Your task to perform on an android device: check the backup settings in the google photos Image 0: 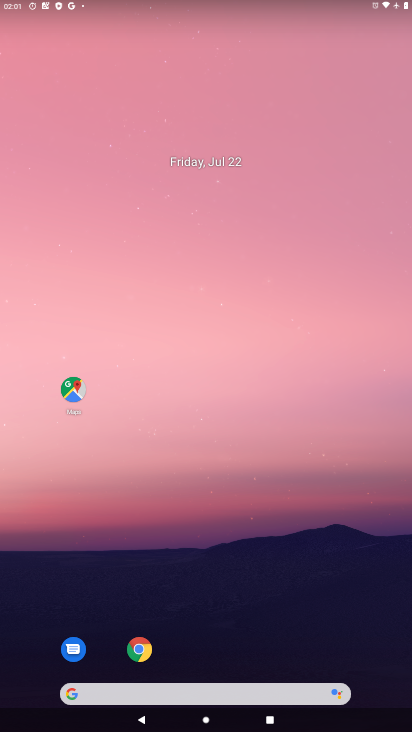
Step 0: drag from (298, 578) to (264, 80)
Your task to perform on an android device: check the backup settings in the google photos Image 1: 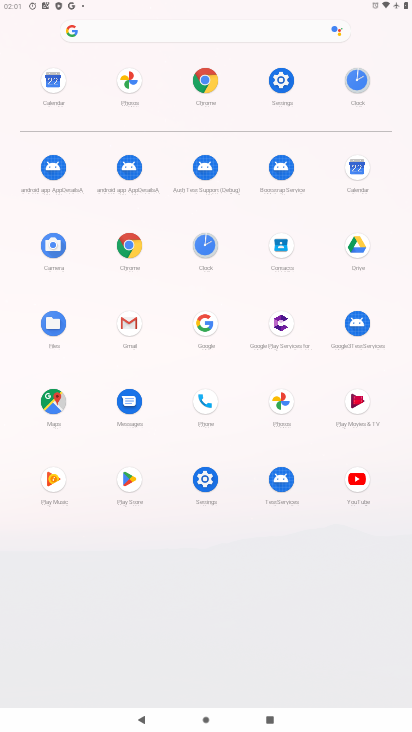
Step 1: click (276, 396)
Your task to perform on an android device: check the backup settings in the google photos Image 2: 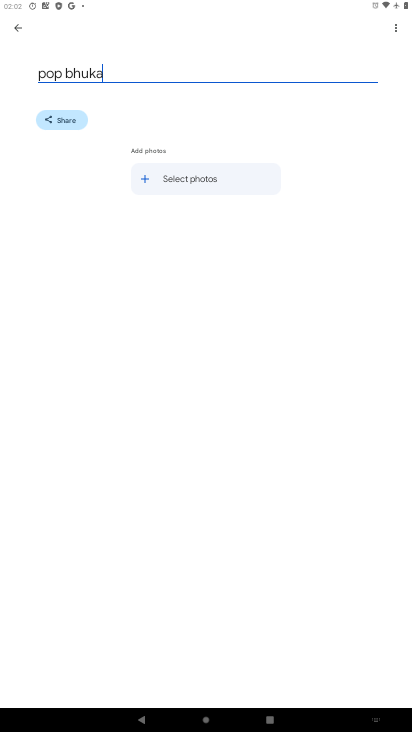
Step 2: click (17, 24)
Your task to perform on an android device: check the backup settings in the google photos Image 3: 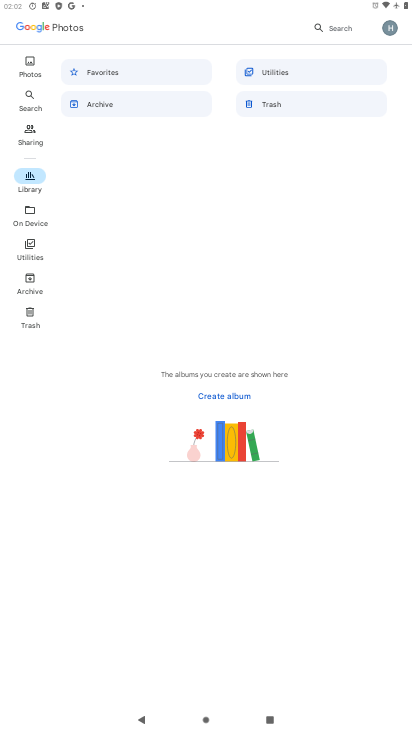
Step 3: click (396, 23)
Your task to perform on an android device: check the backup settings in the google photos Image 4: 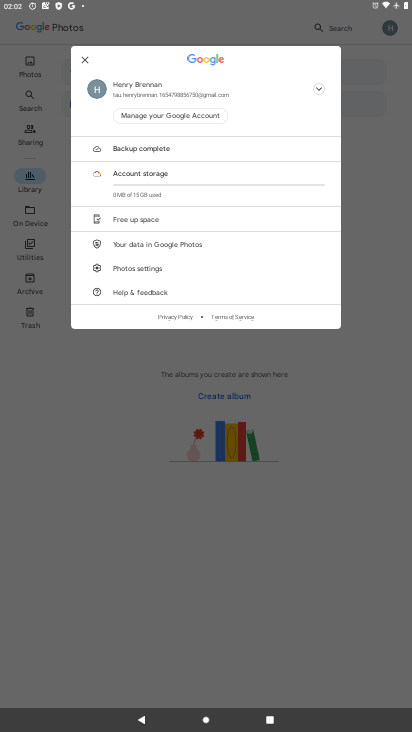
Step 4: click (137, 273)
Your task to perform on an android device: check the backup settings in the google photos Image 5: 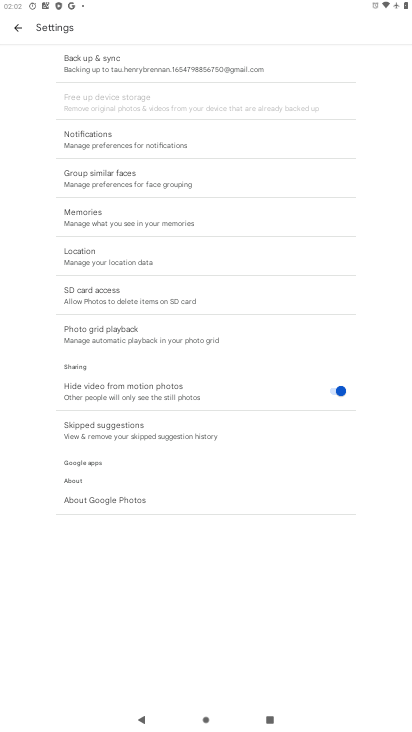
Step 5: click (143, 61)
Your task to perform on an android device: check the backup settings in the google photos Image 6: 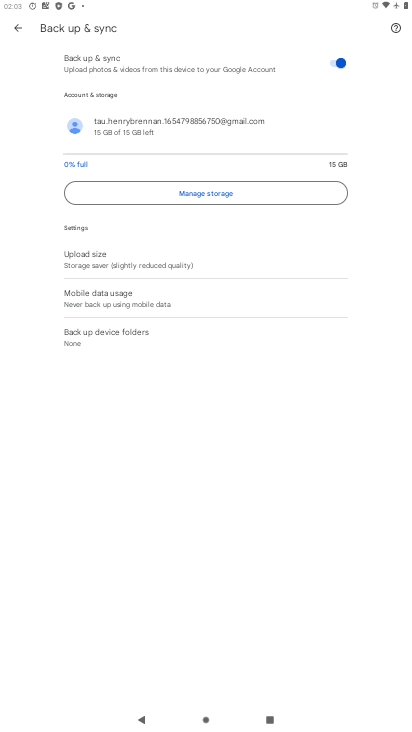
Step 6: task complete